Your task to perform on an android device: Go to location settings Image 0: 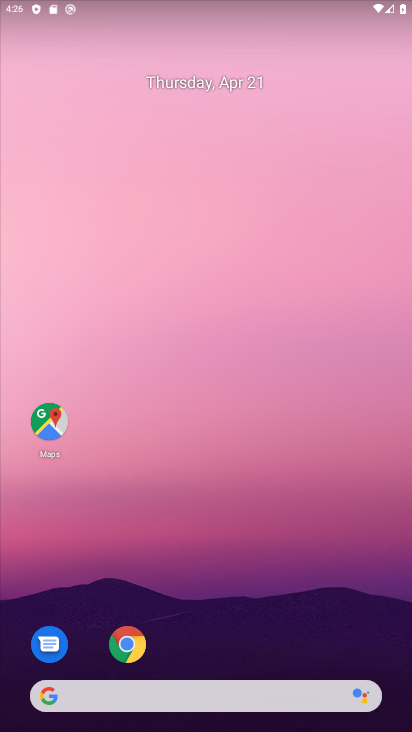
Step 0: click (323, 209)
Your task to perform on an android device: Go to location settings Image 1: 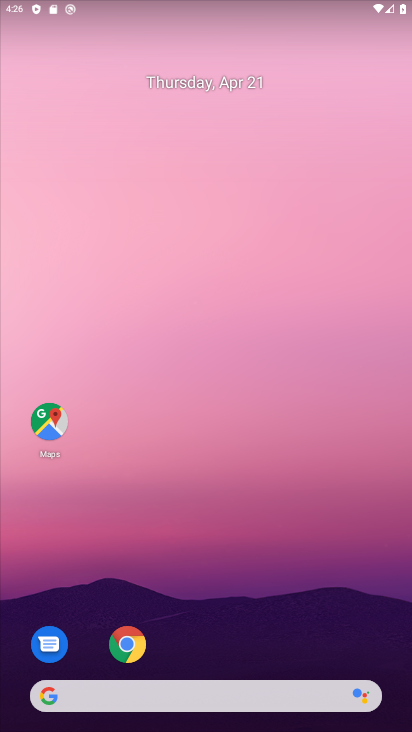
Step 1: drag from (238, 603) to (266, 253)
Your task to perform on an android device: Go to location settings Image 2: 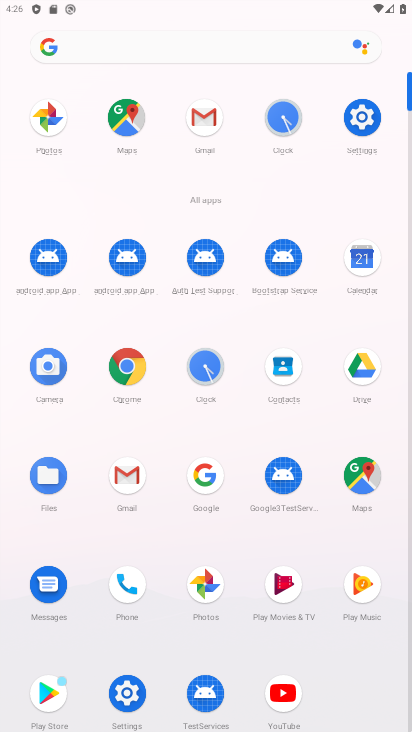
Step 2: click (355, 114)
Your task to perform on an android device: Go to location settings Image 3: 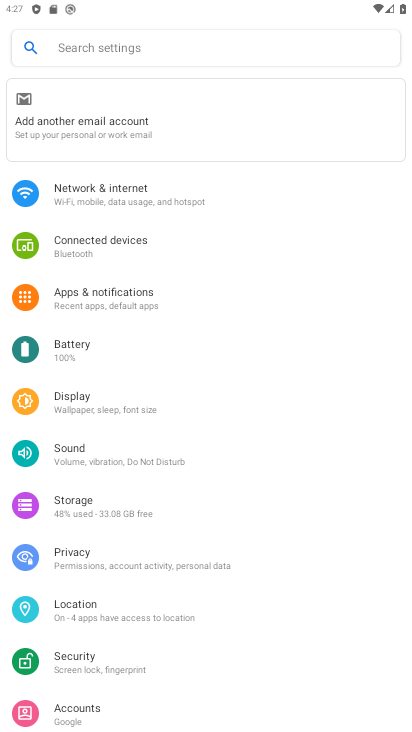
Step 3: click (76, 614)
Your task to perform on an android device: Go to location settings Image 4: 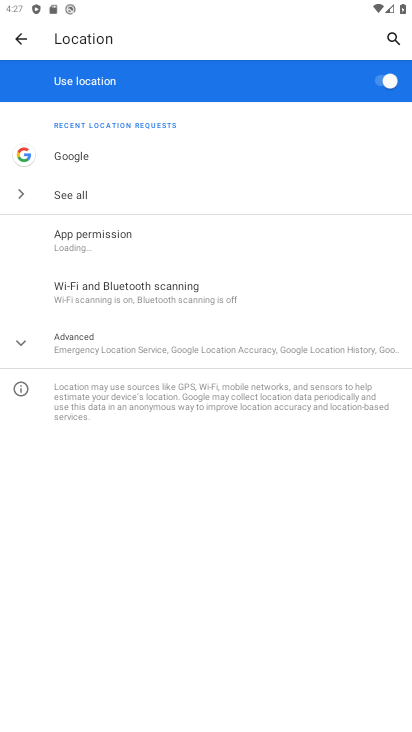
Step 4: click (82, 339)
Your task to perform on an android device: Go to location settings Image 5: 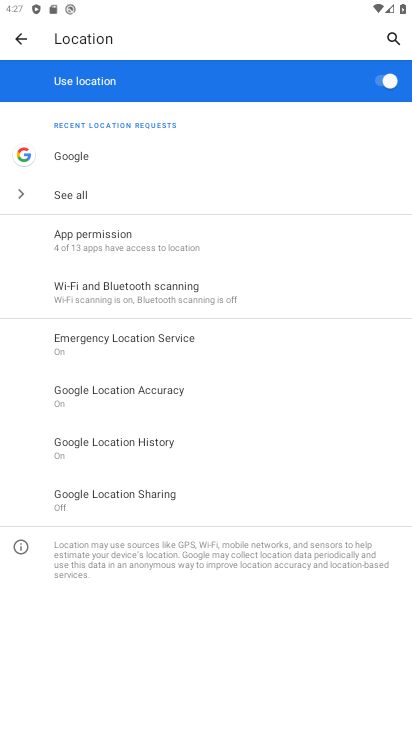
Step 5: task complete